Your task to perform on an android device: empty trash in the gmail app Image 0: 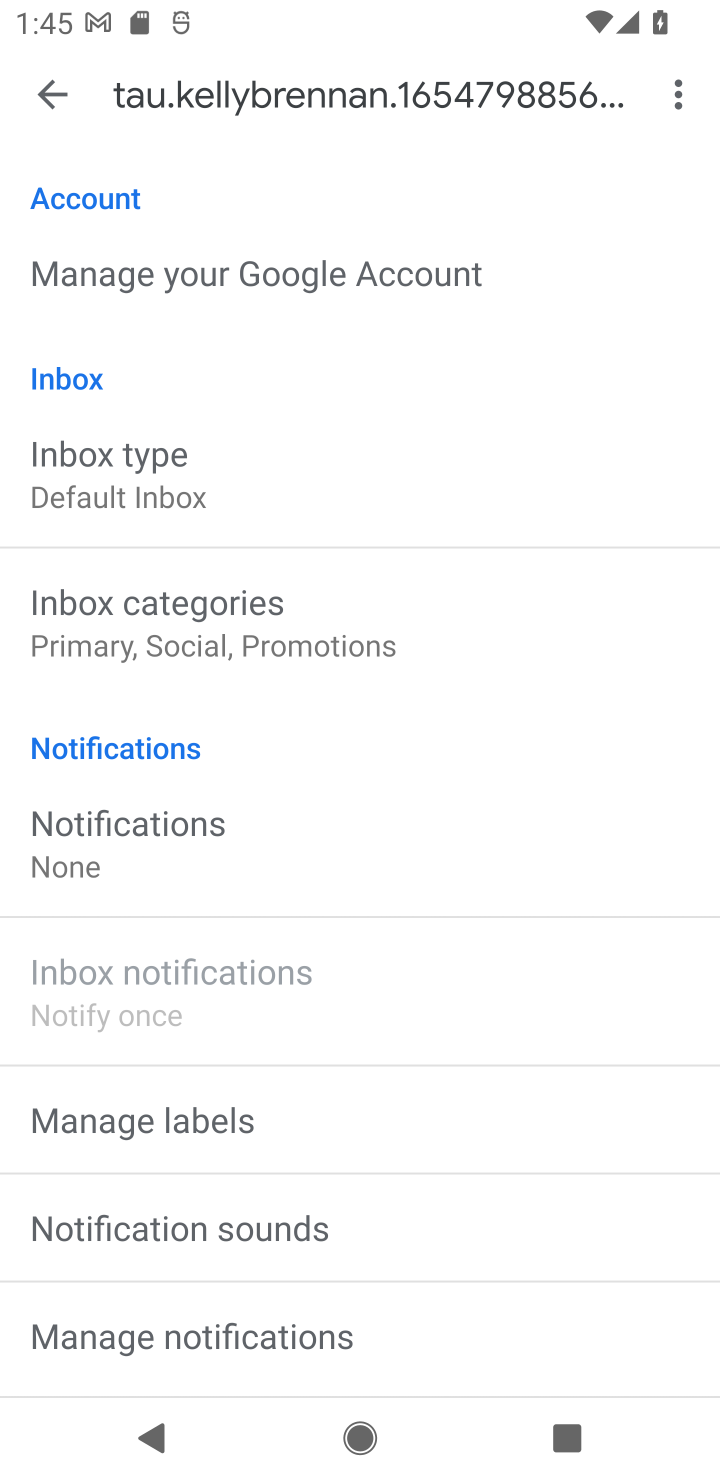
Step 0: press home button
Your task to perform on an android device: empty trash in the gmail app Image 1: 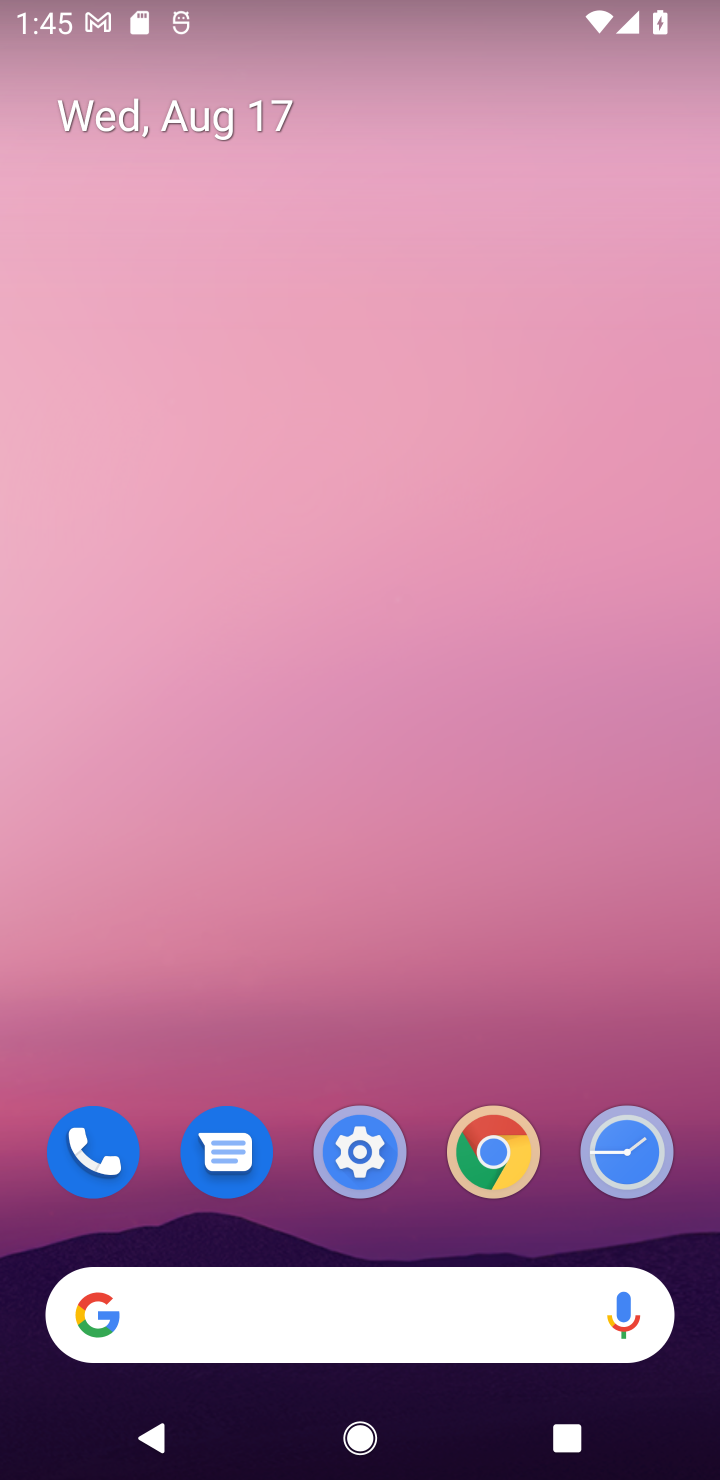
Step 1: drag from (554, 1087) to (268, 96)
Your task to perform on an android device: empty trash in the gmail app Image 2: 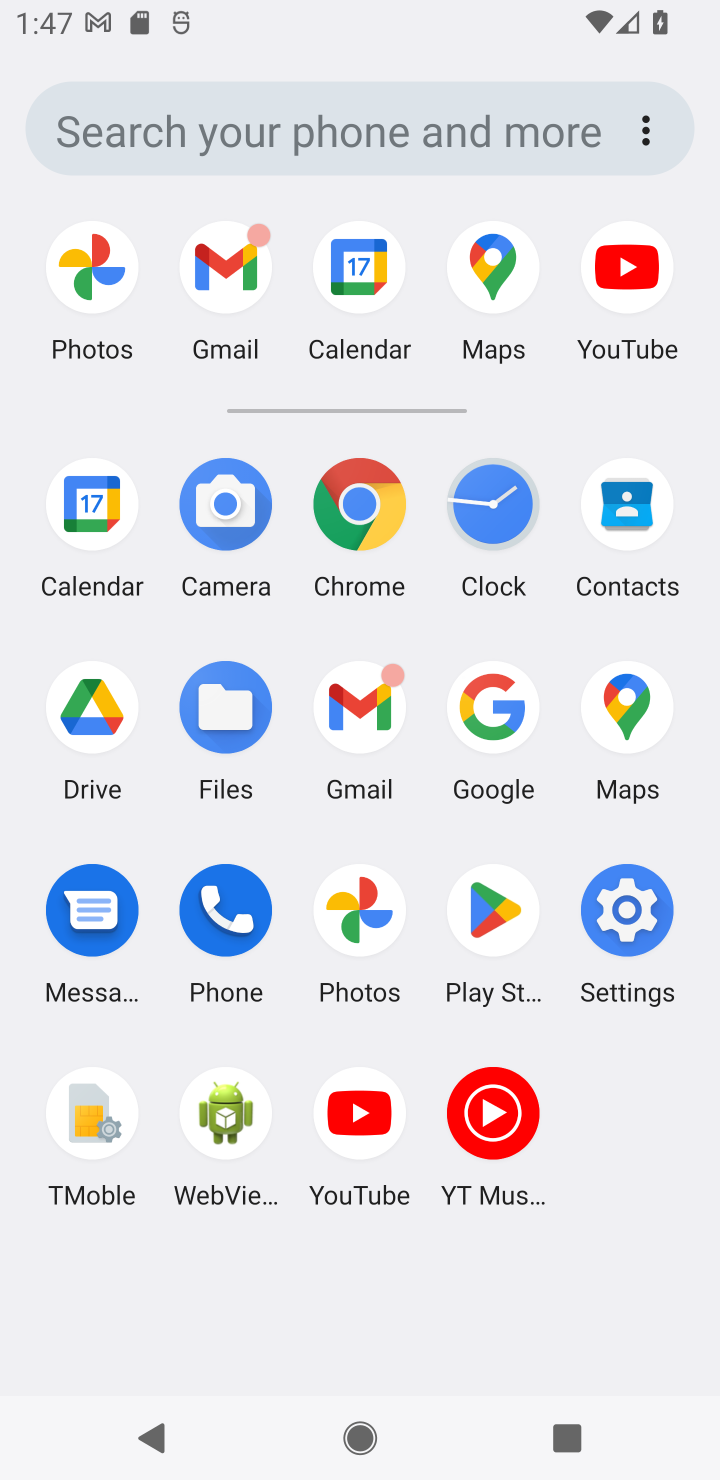
Step 2: click (381, 694)
Your task to perform on an android device: empty trash in the gmail app Image 3: 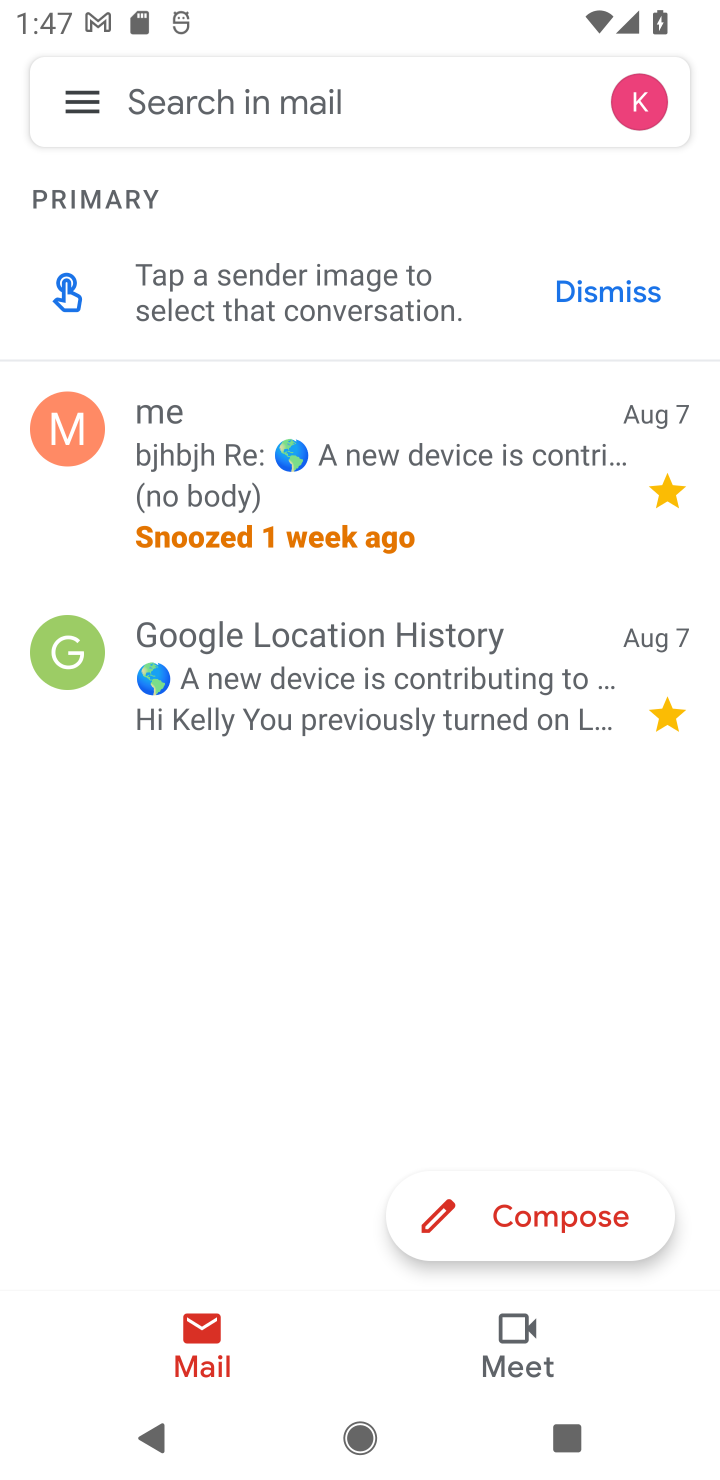
Step 3: click (56, 100)
Your task to perform on an android device: empty trash in the gmail app Image 4: 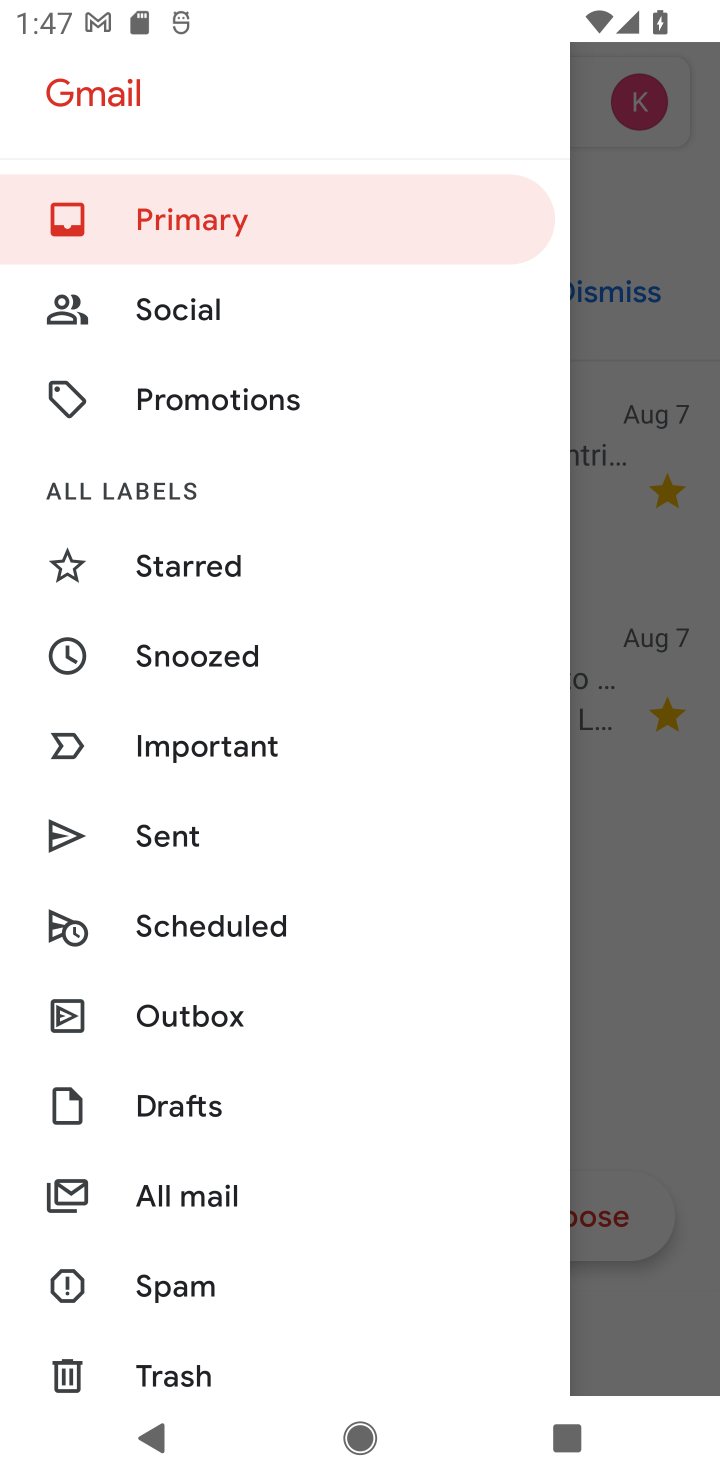
Step 4: click (185, 1361)
Your task to perform on an android device: empty trash in the gmail app Image 5: 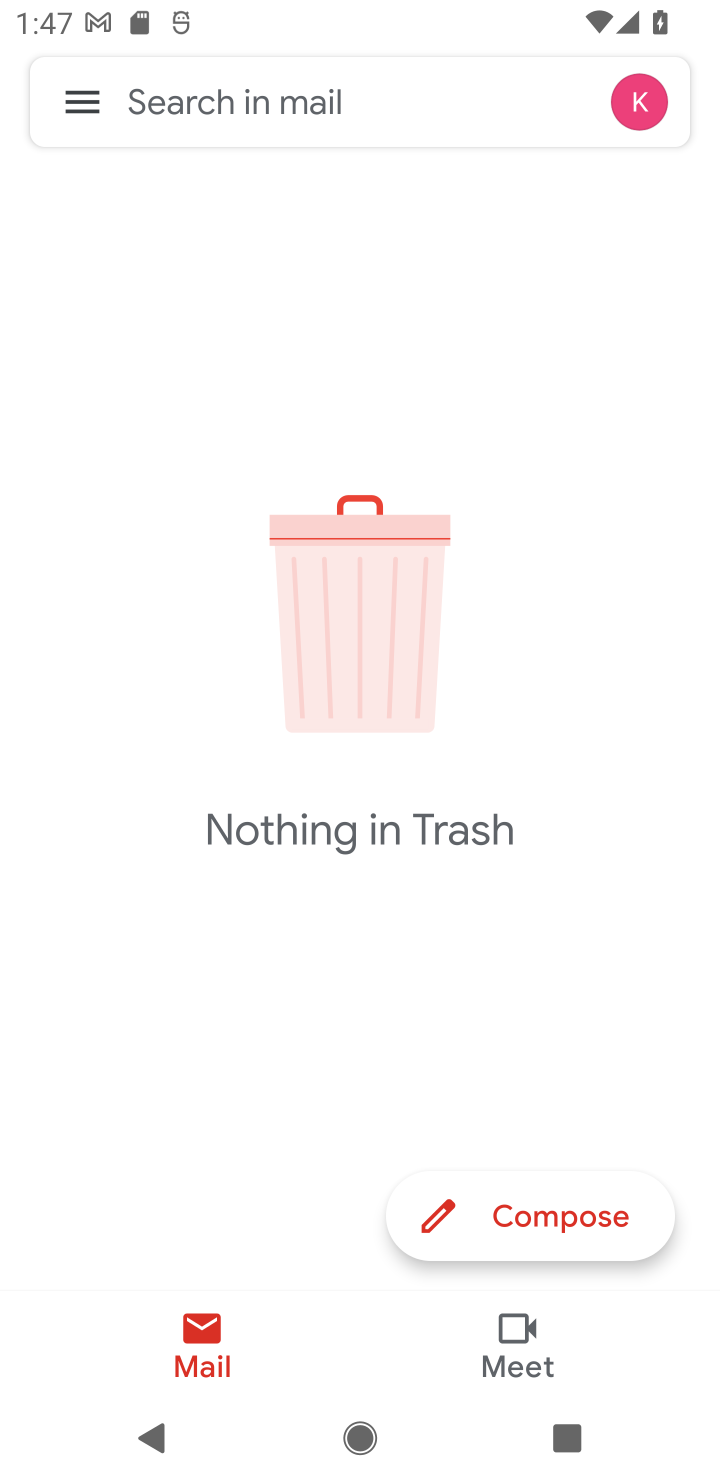
Step 5: task complete